Your task to perform on an android device: Turn on the flashlight Image 0: 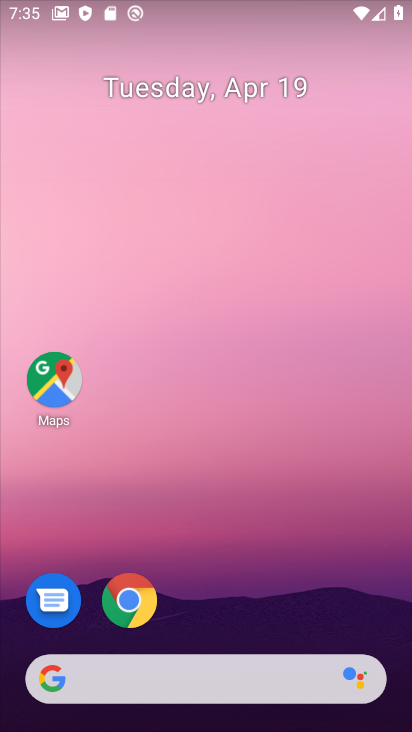
Step 0: drag from (259, 622) to (275, 32)
Your task to perform on an android device: Turn on the flashlight Image 1: 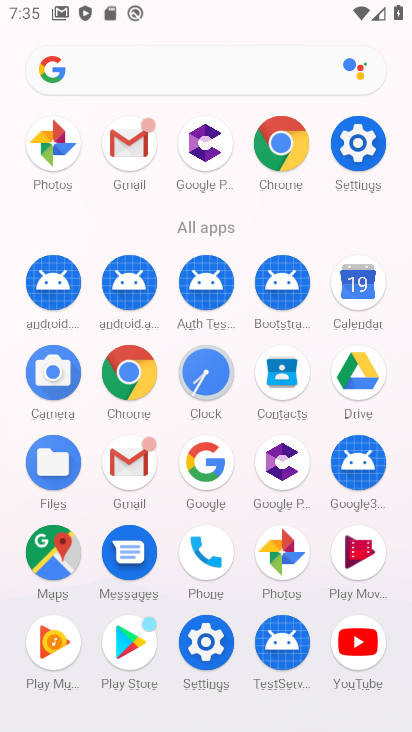
Step 1: click (353, 134)
Your task to perform on an android device: Turn on the flashlight Image 2: 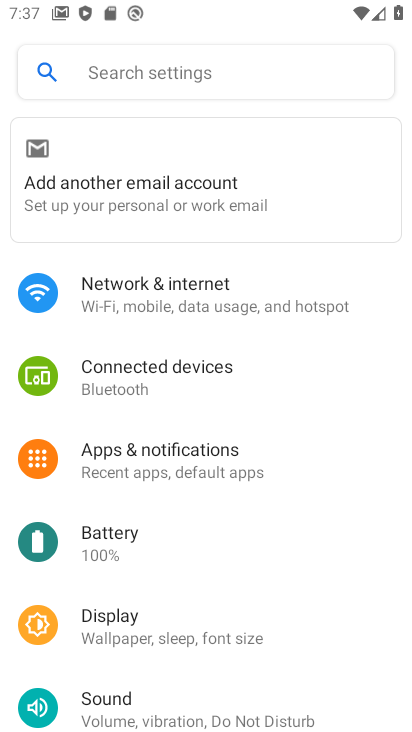
Step 2: task complete